Your task to perform on an android device: Open CNN.com Image 0: 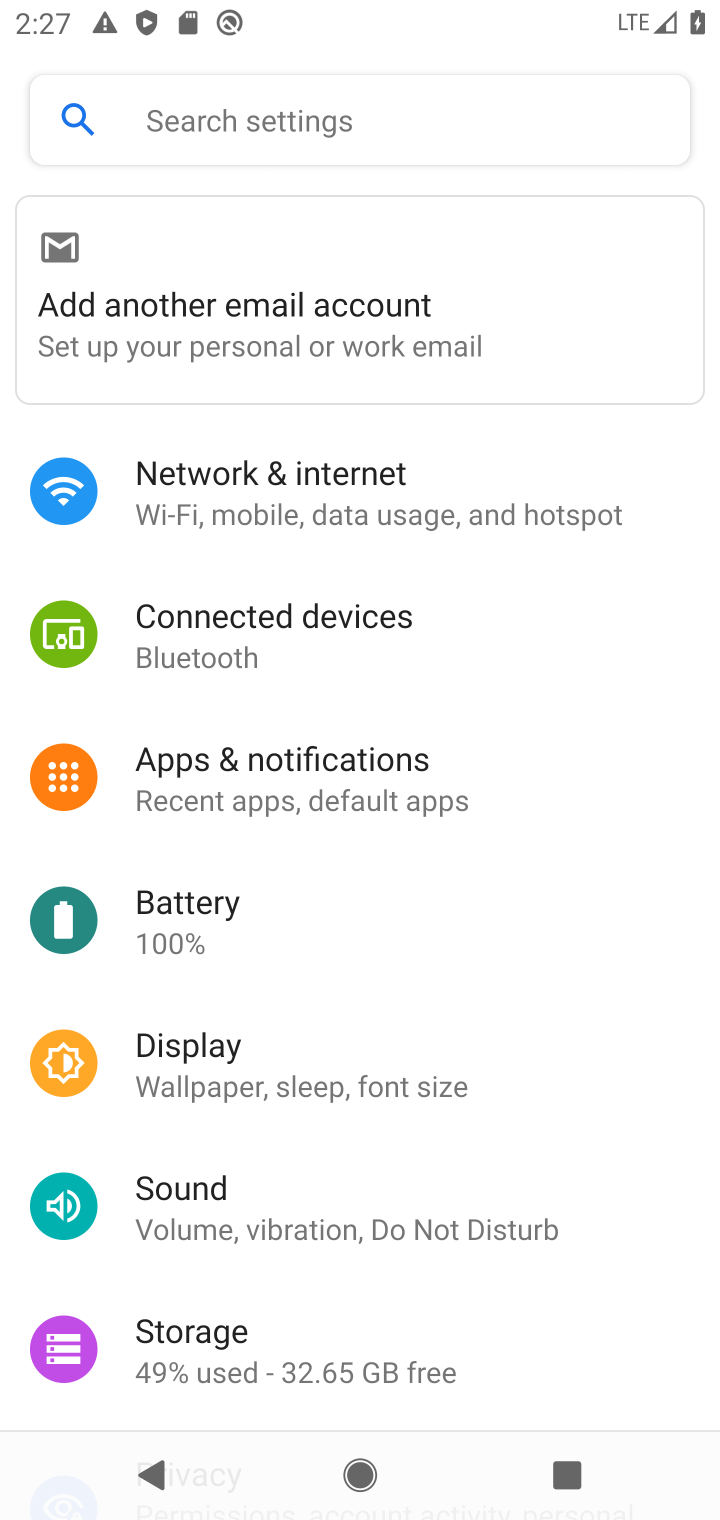
Step 0: press back button
Your task to perform on an android device: Open CNN.com Image 1: 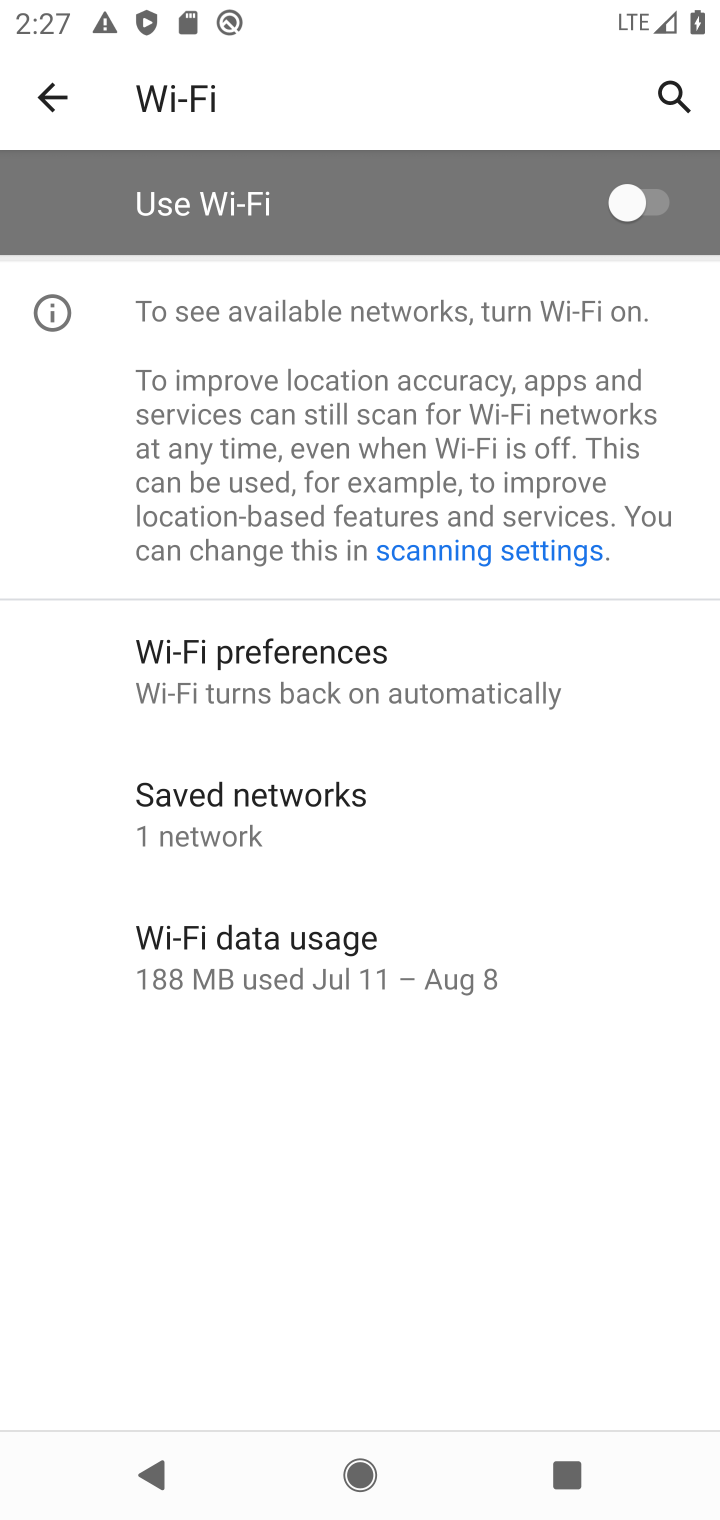
Step 1: press back button
Your task to perform on an android device: Open CNN.com Image 2: 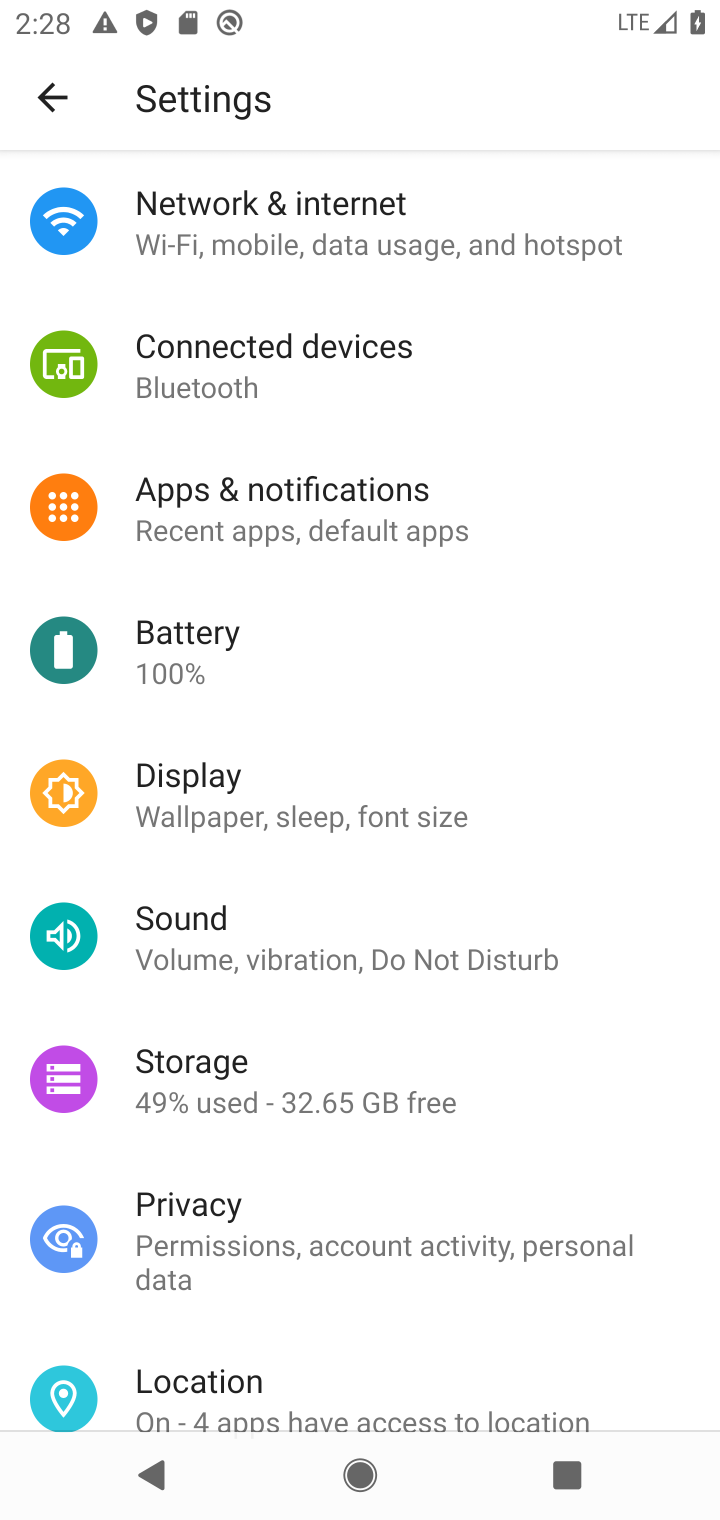
Step 2: press back button
Your task to perform on an android device: Open CNN.com Image 3: 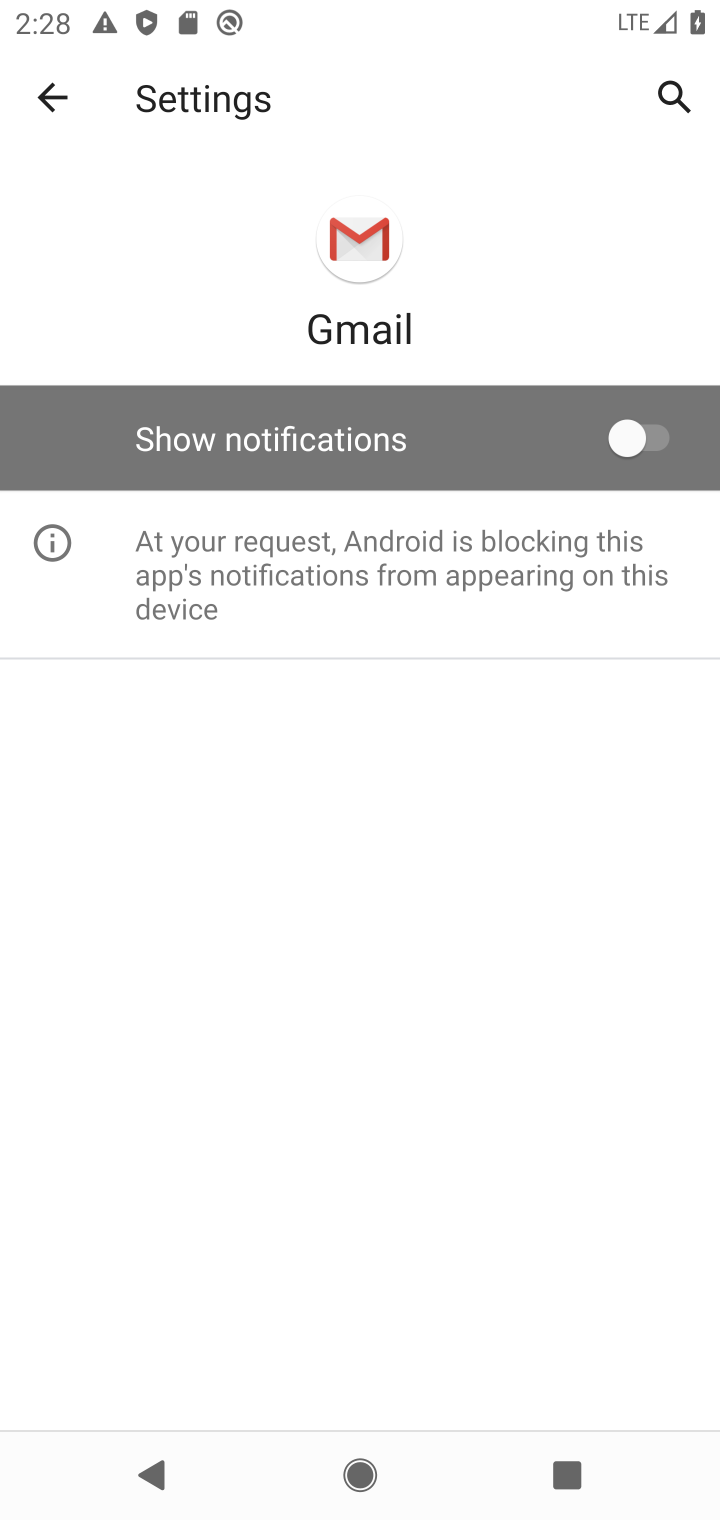
Step 3: press back button
Your task to perform on an android device: Open CNN.com Image 4: 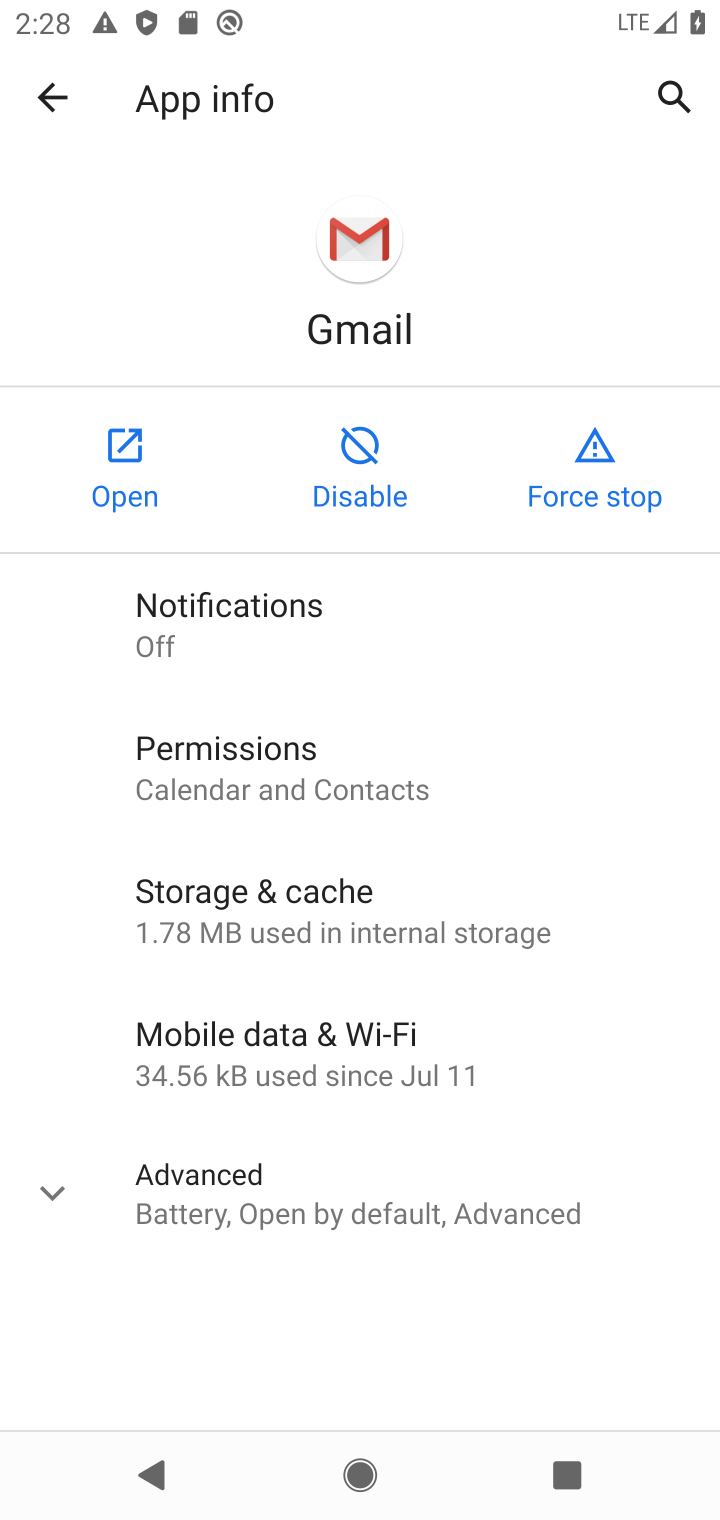
Step 4: press back button
Your task to perform on an android device: Open CNN.com Image 5: 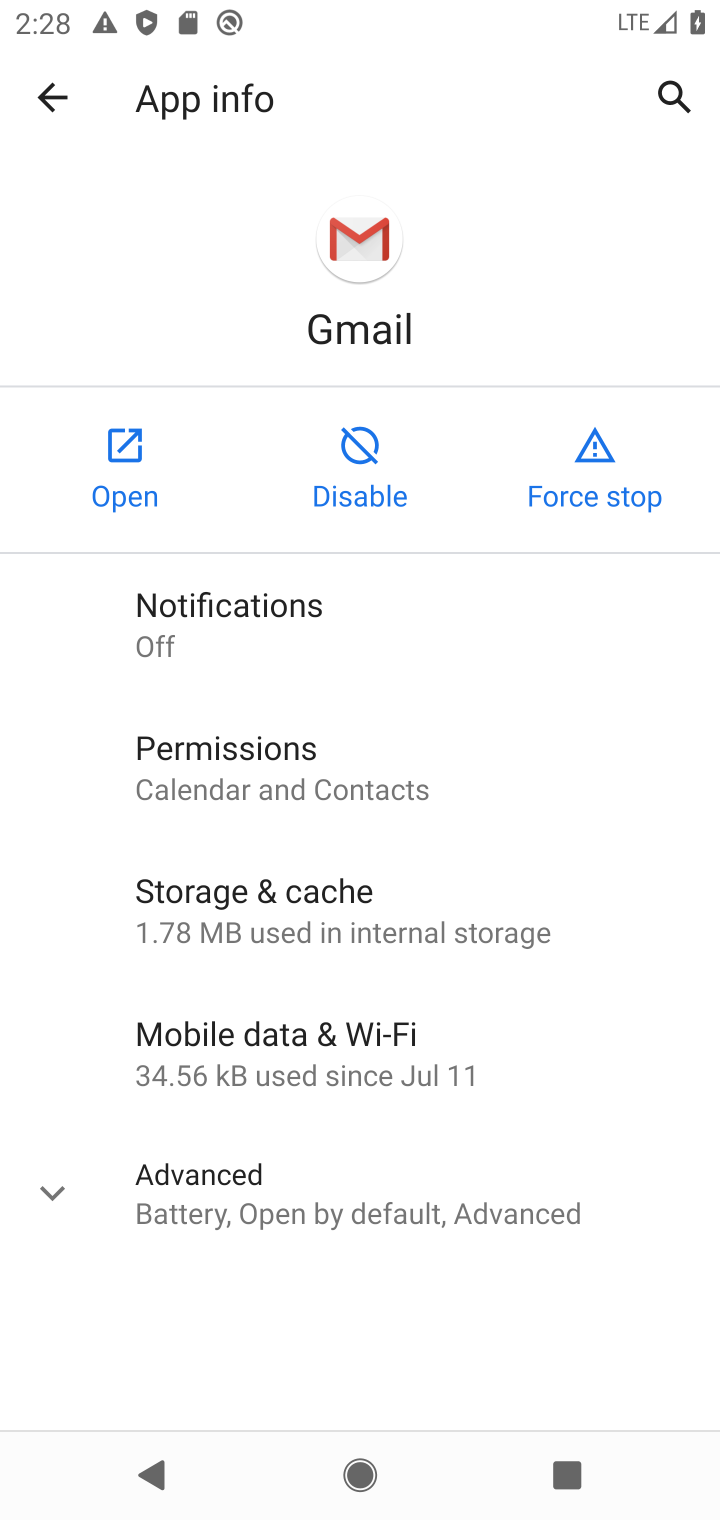
Step 5: press back button
Your task to perform on an android device: Open CNN.com Image 6: 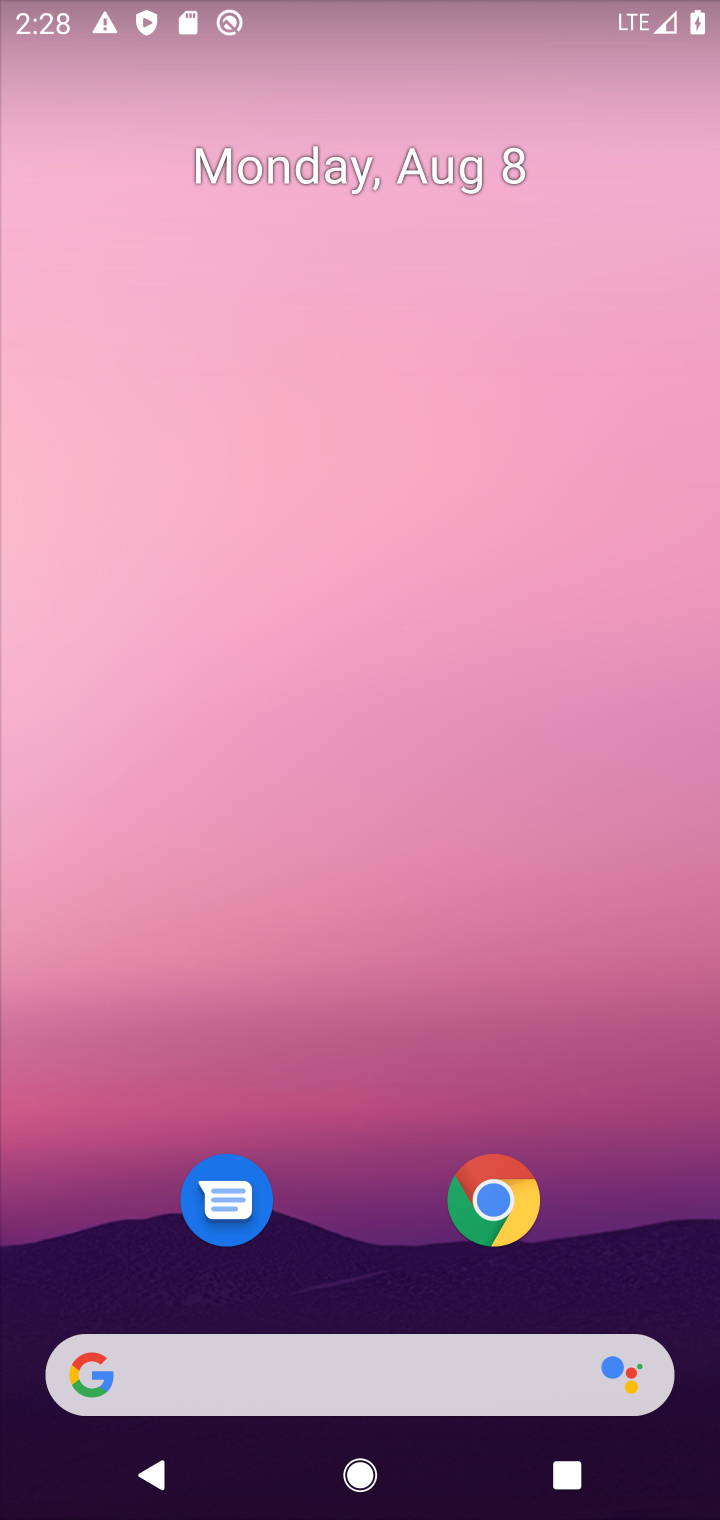
Step 6: click (495, 1183)
Your task to perform on an android device: Open CNN.com Image 7: 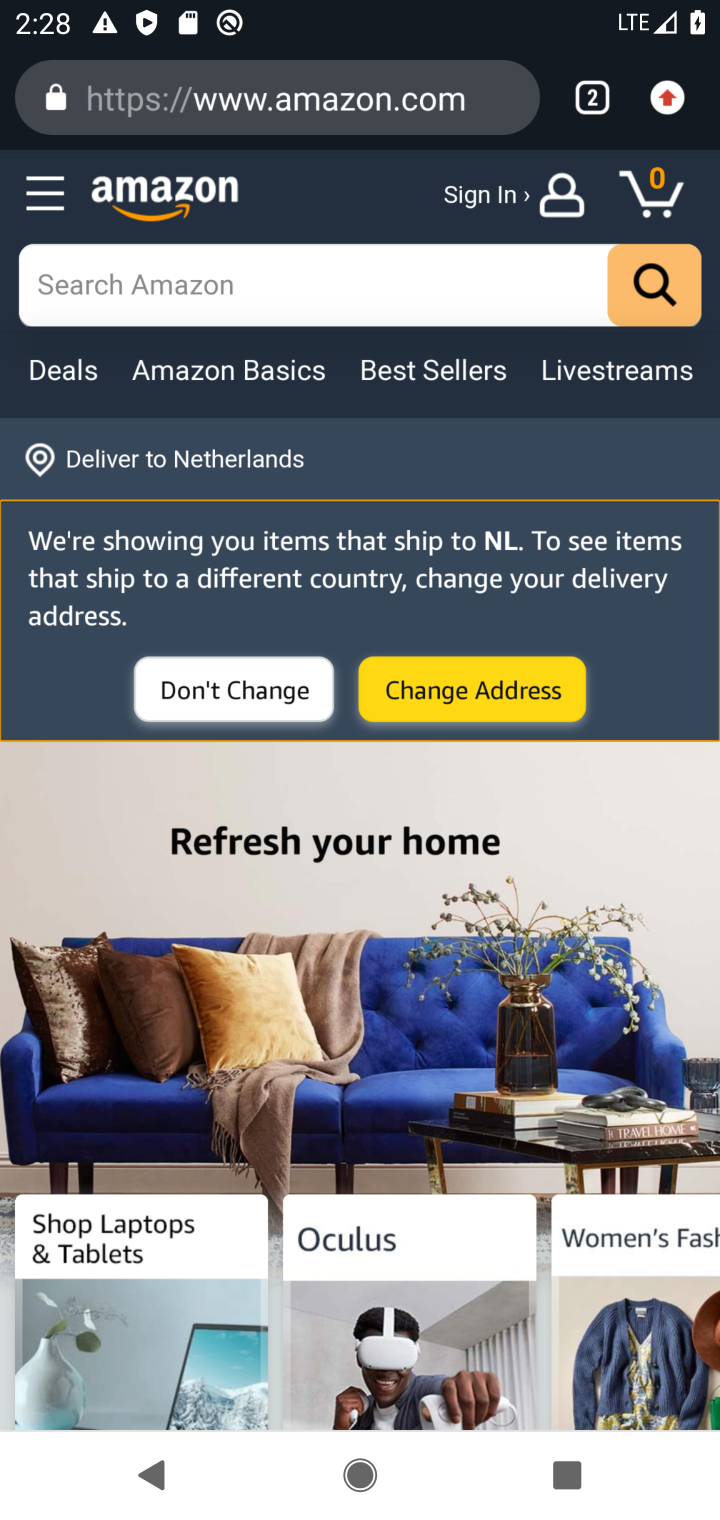
Step 7: click (611, 113)
Your task to perform on an android device: Open CNN.com Image 8: 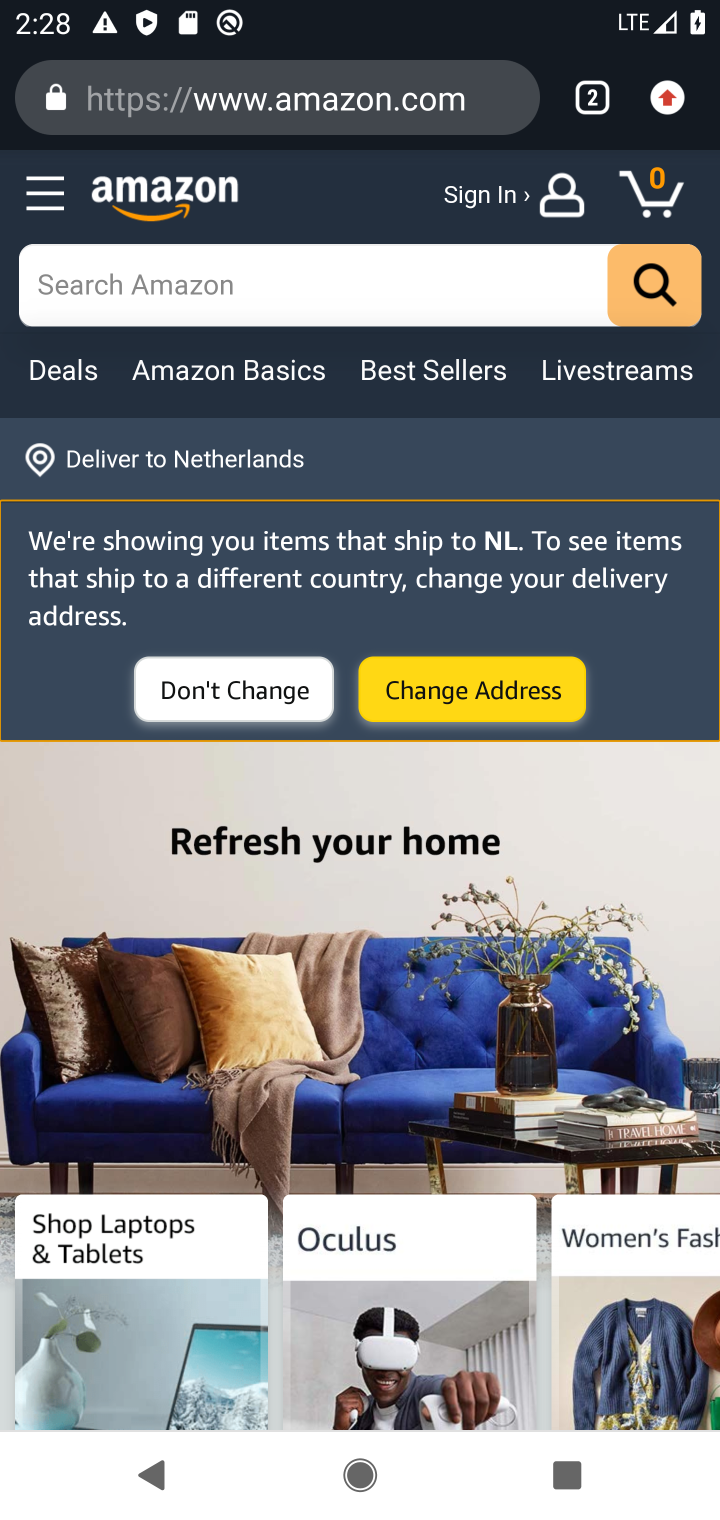
Step 8: click (594, 91)
Your task to perform on an android device: Open CNN.com Image 9: 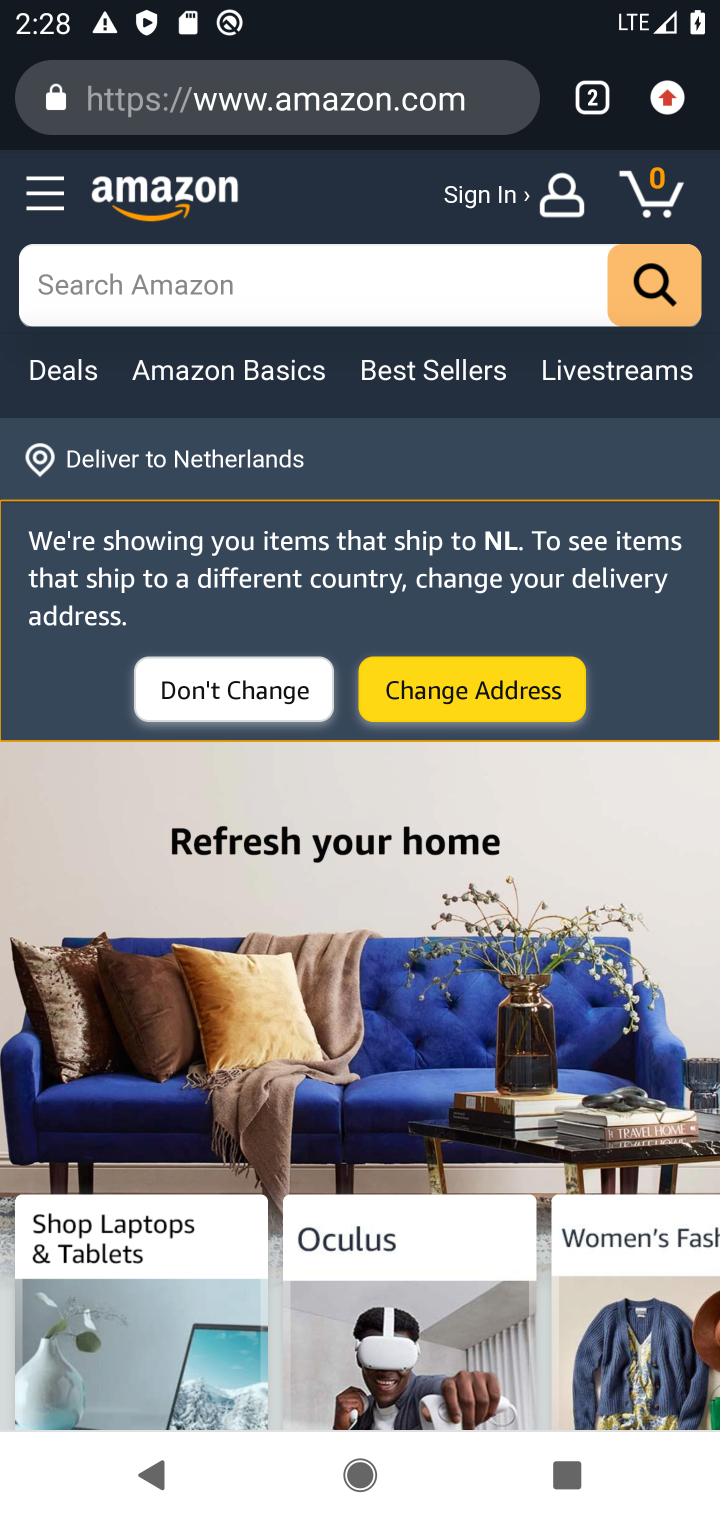
Step 9: click (600, 100)
Your task to perform on an android device: Open CNN.com Image 10: 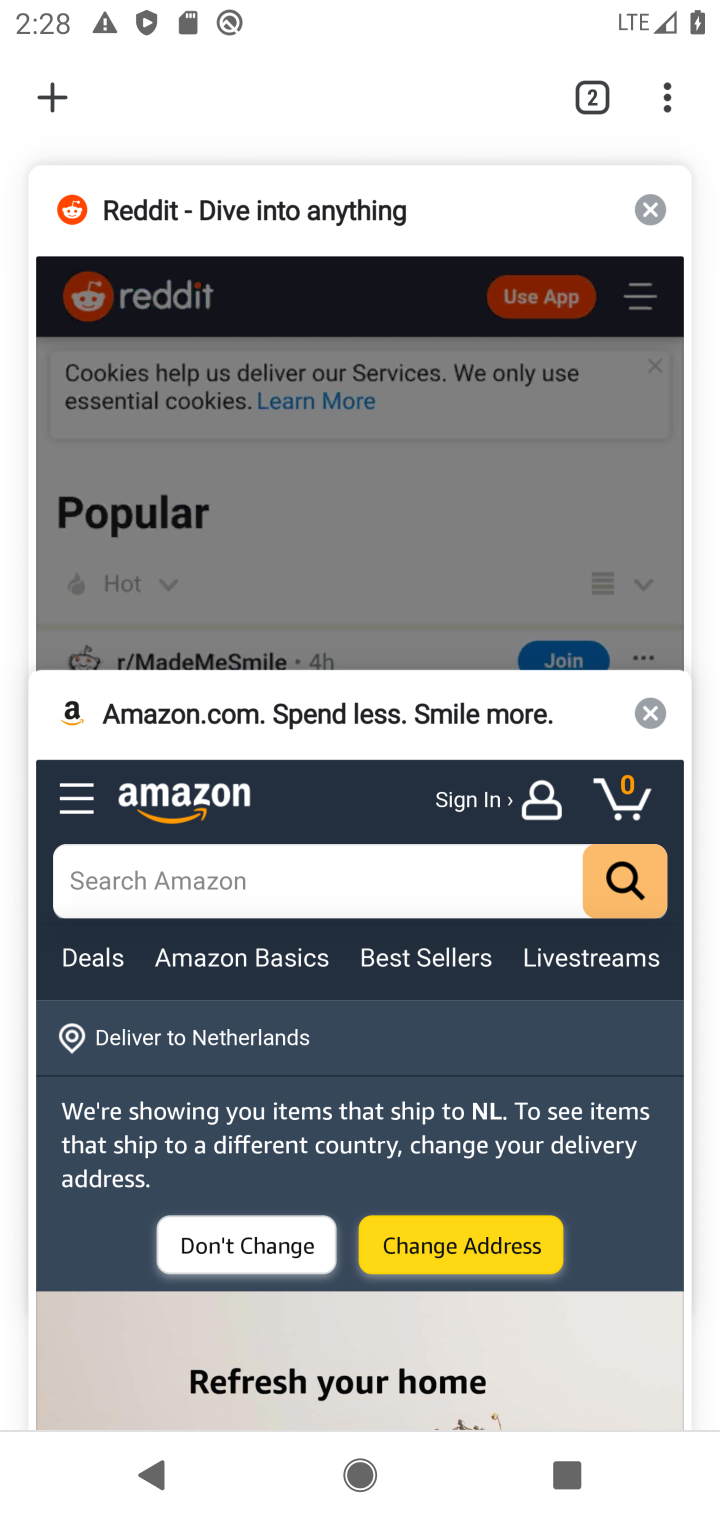
Step 10: click (54, 88)
Your task to perform on an android device: Open CNN.com Image 11: 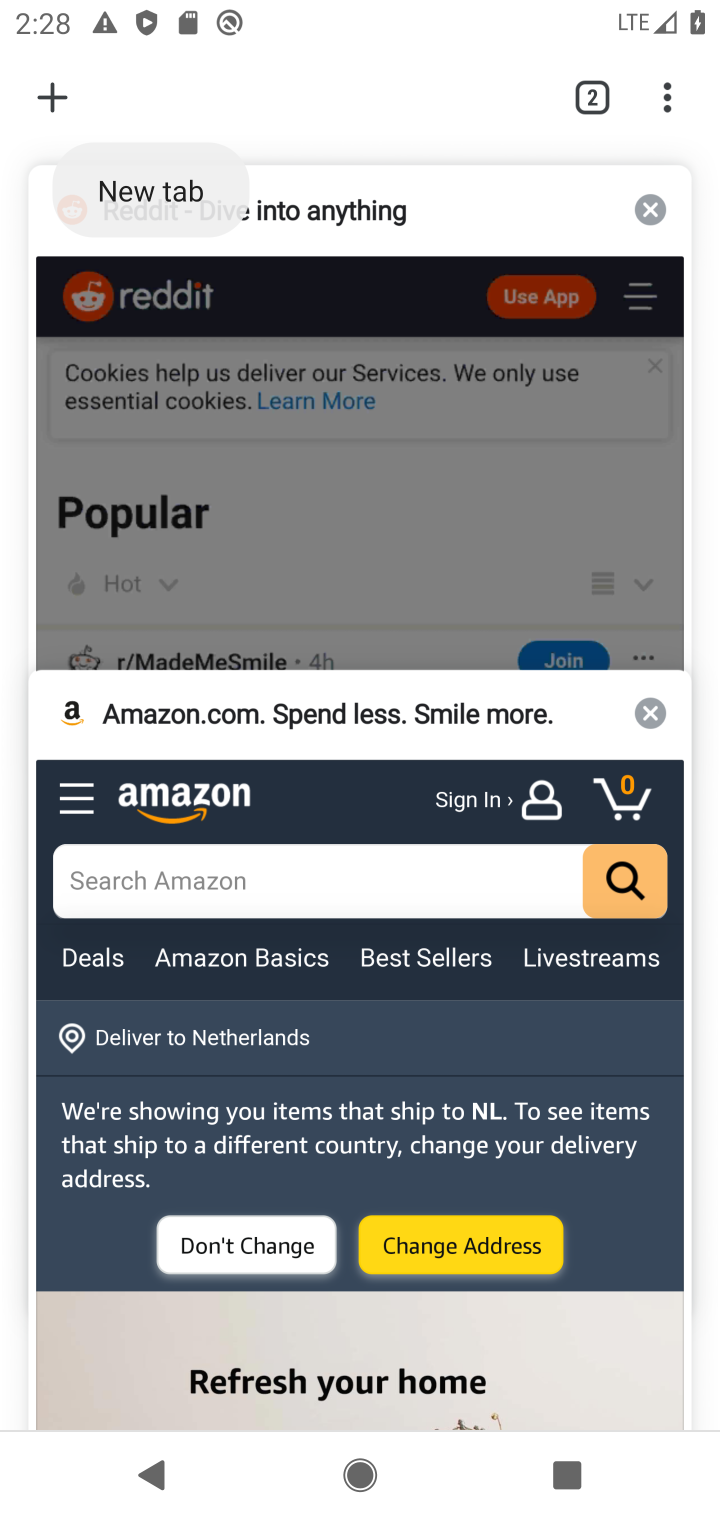
Step 11: click (45, 110)
Your task to perform on an android device: Open CNN.com Image 12: 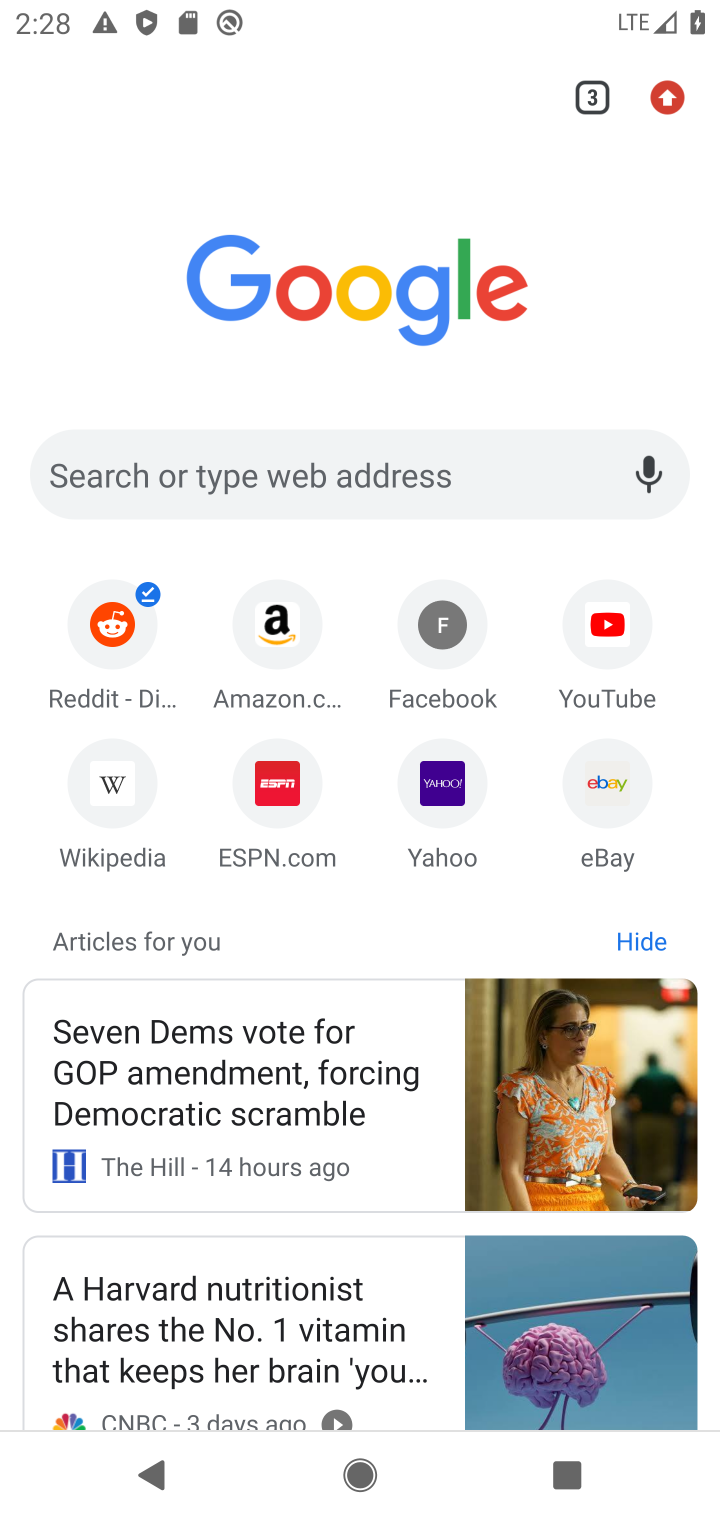
Step 12: click (307, 473)
Your task to perform on an android device: Open CNN.com Image 13: 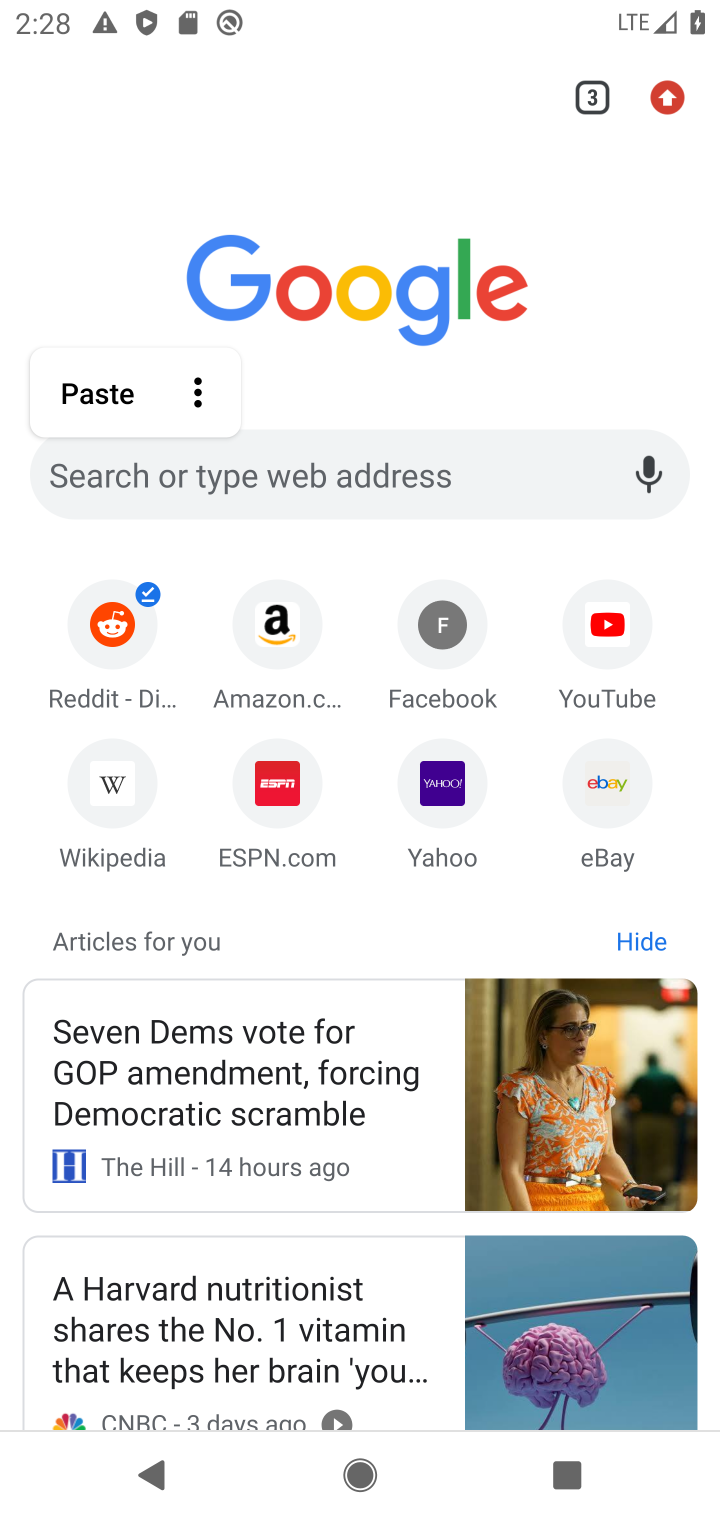
Step 13: type "cnn.com"
Your task to perform on an android device: Open CNN.com Image 14: 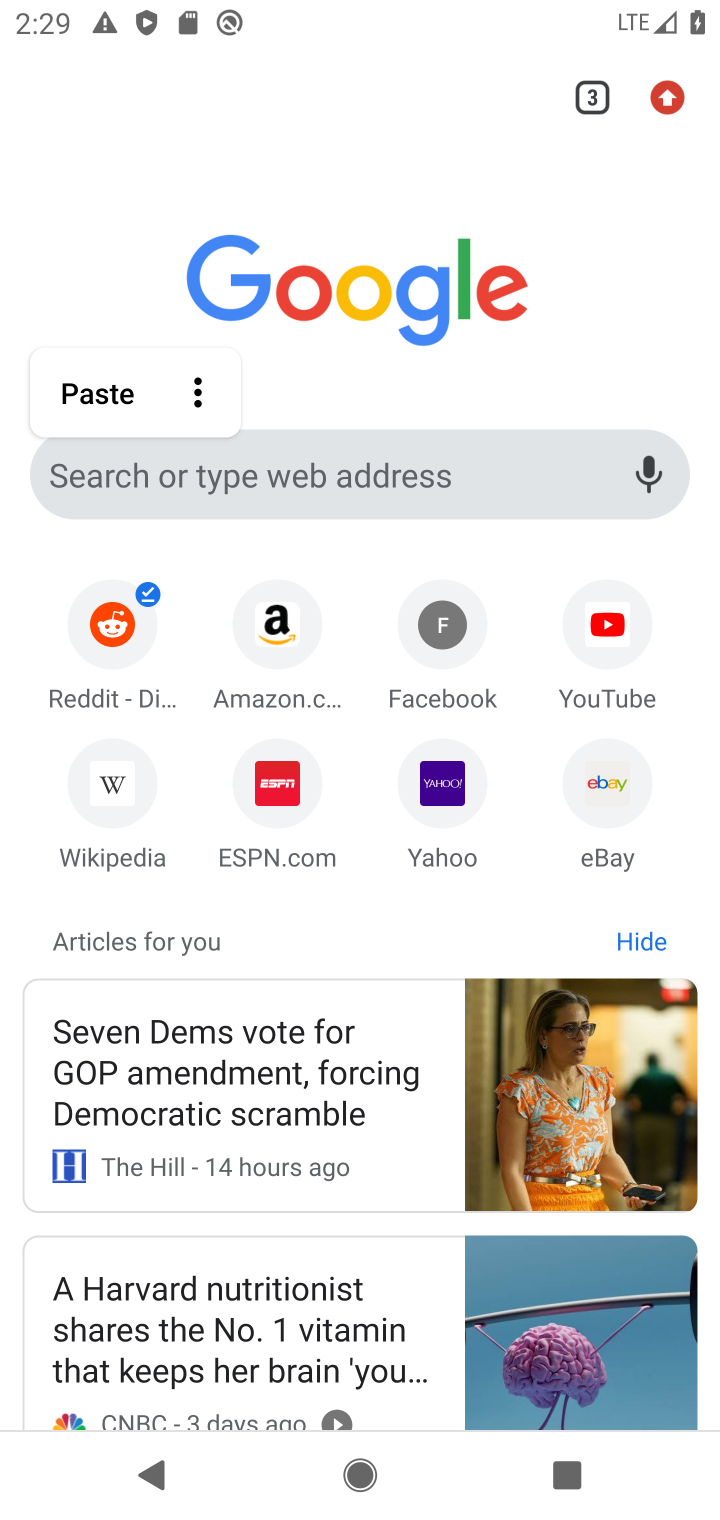
Step 14: click (267, 485)
Your task to perform on an android device: Open CNN.com Image 15: 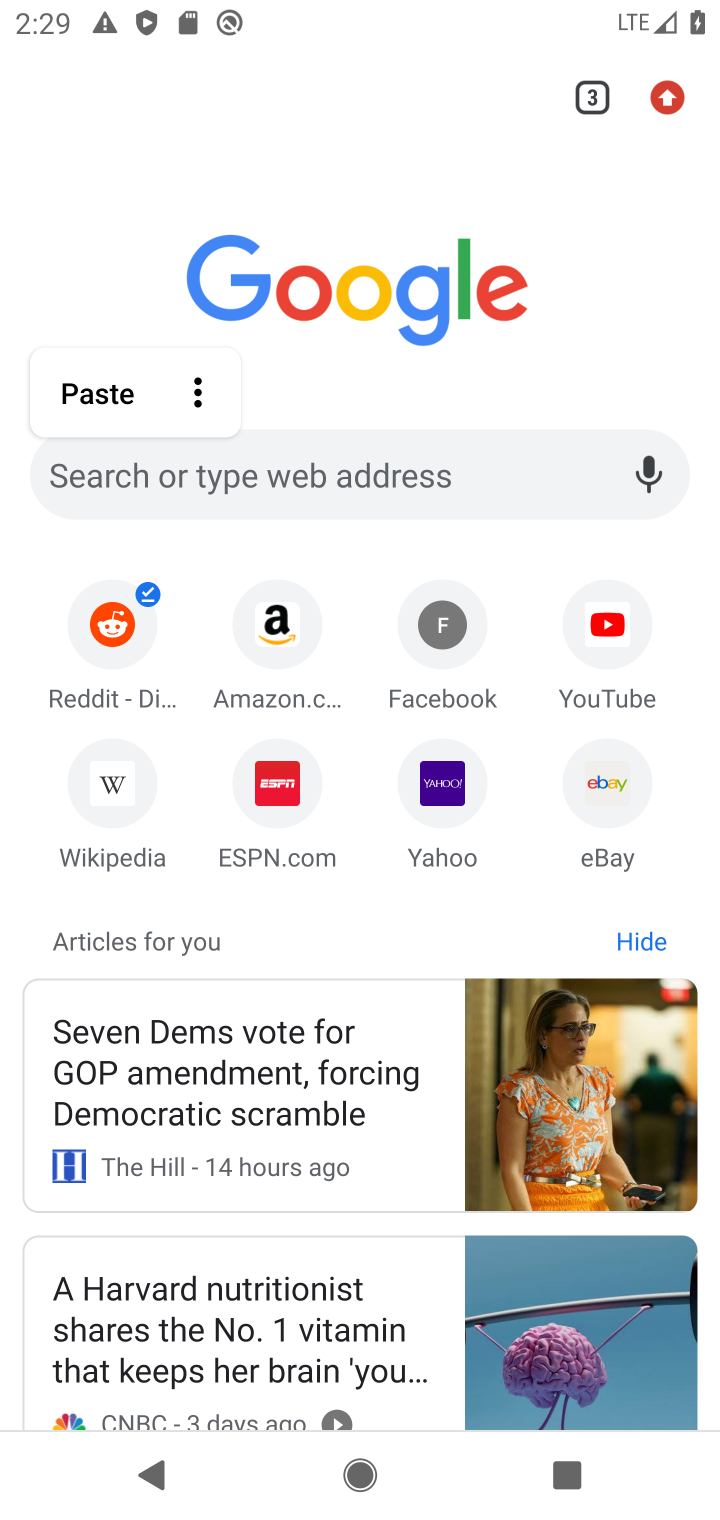
Step 15: click (273, 470)
Your task to perform on an android device: Open CNN.com Image 16: 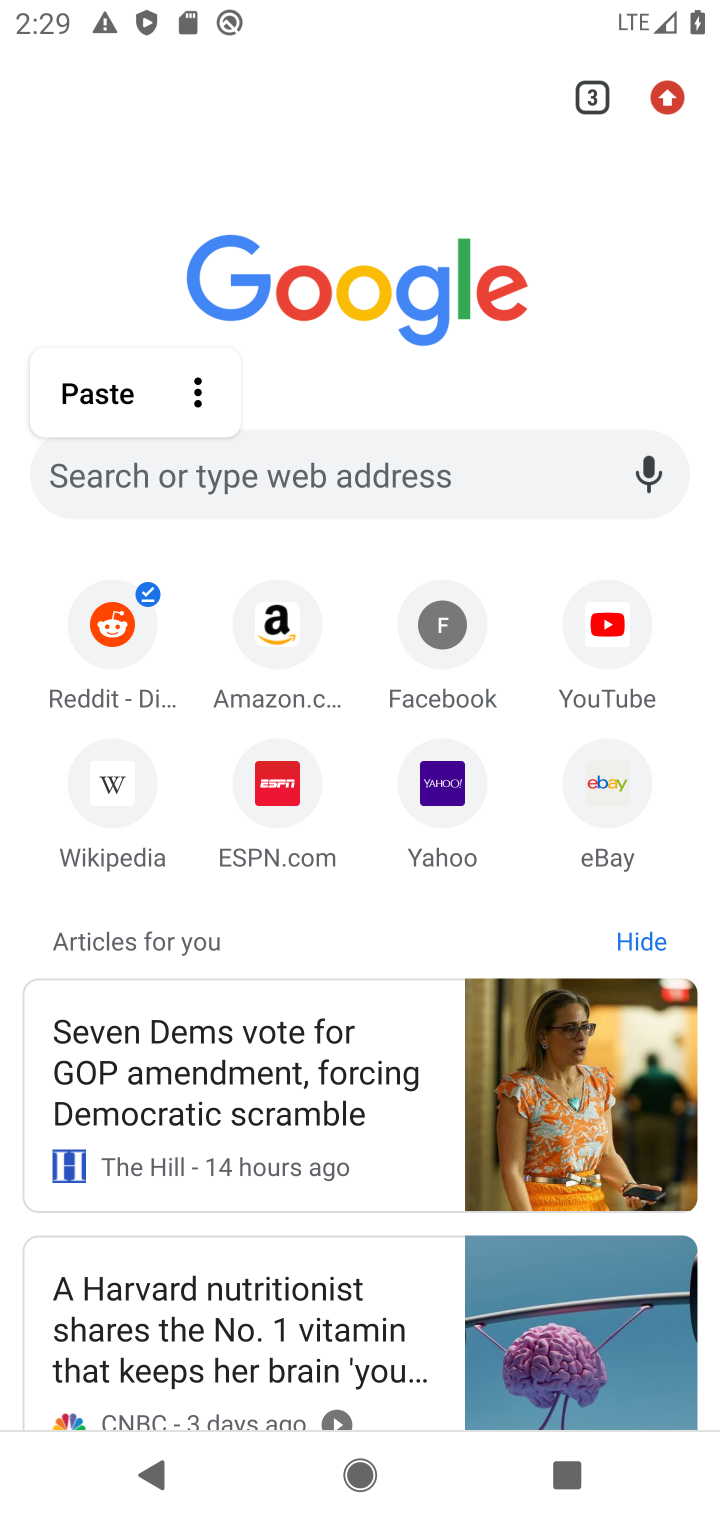
Step 16: type "cnn.com"
Your task to perform on an android device: Open CNN.com Image 17: 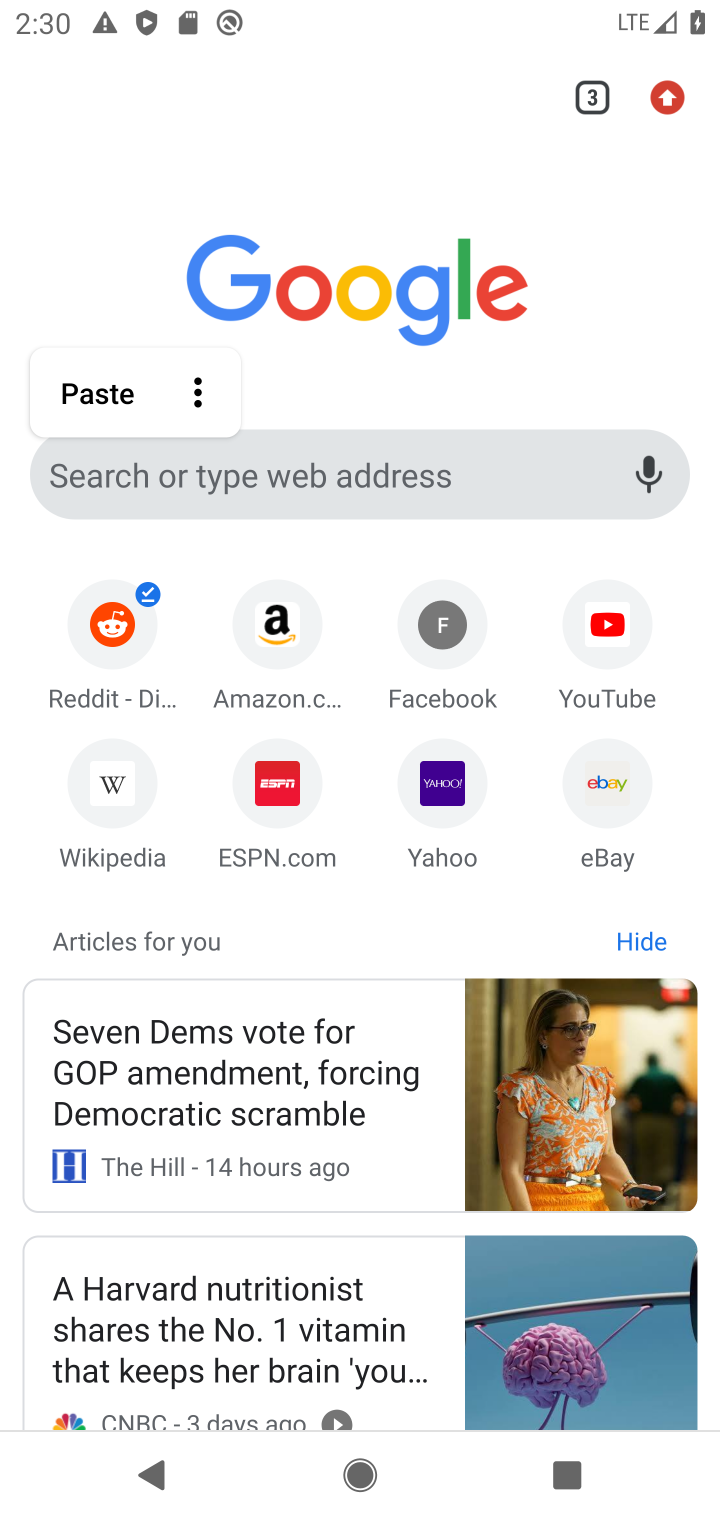
Step 17: click (278, 483)
Your task to perform on an android device: Open CNN.com Image 18: 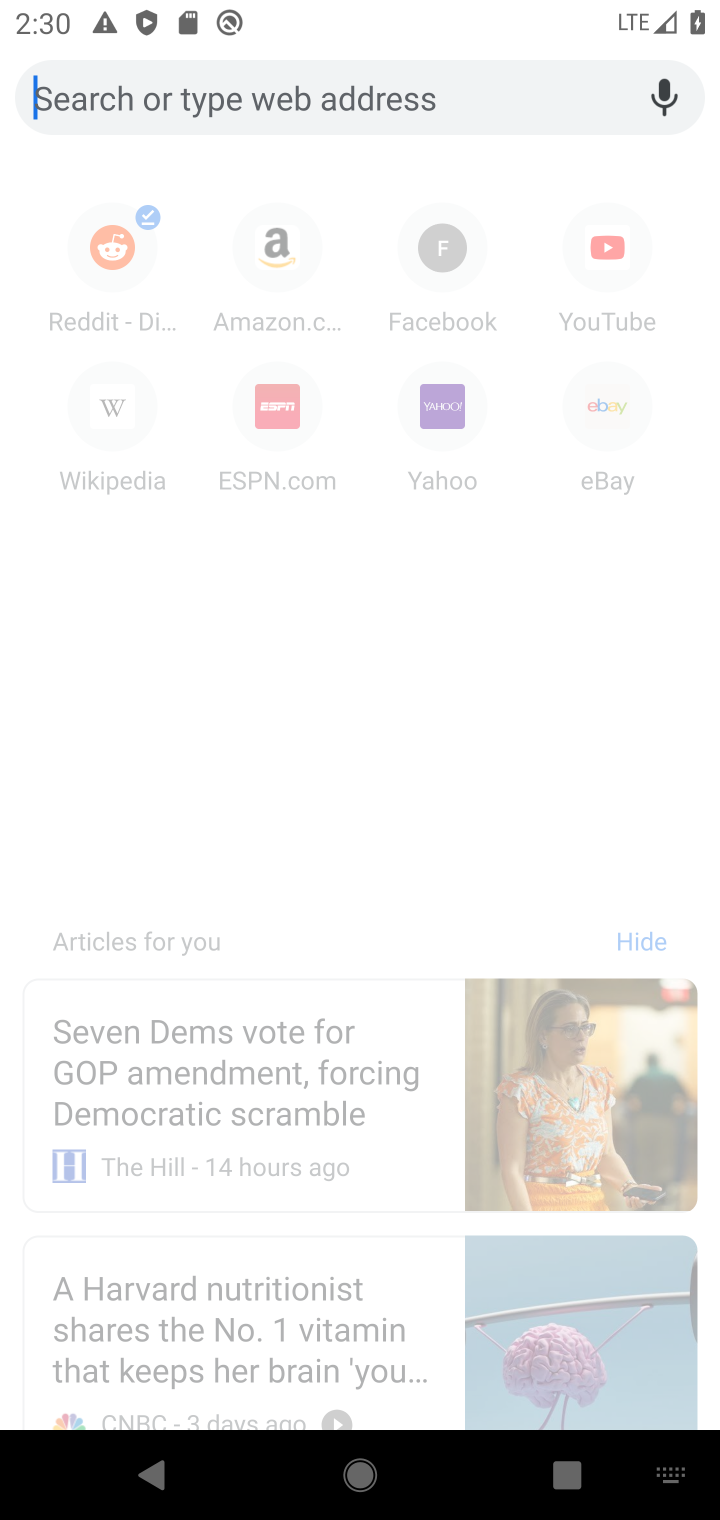
Step 18: click (255, 89)
Your task to perform on an android device: Open CNN.com Image 19: 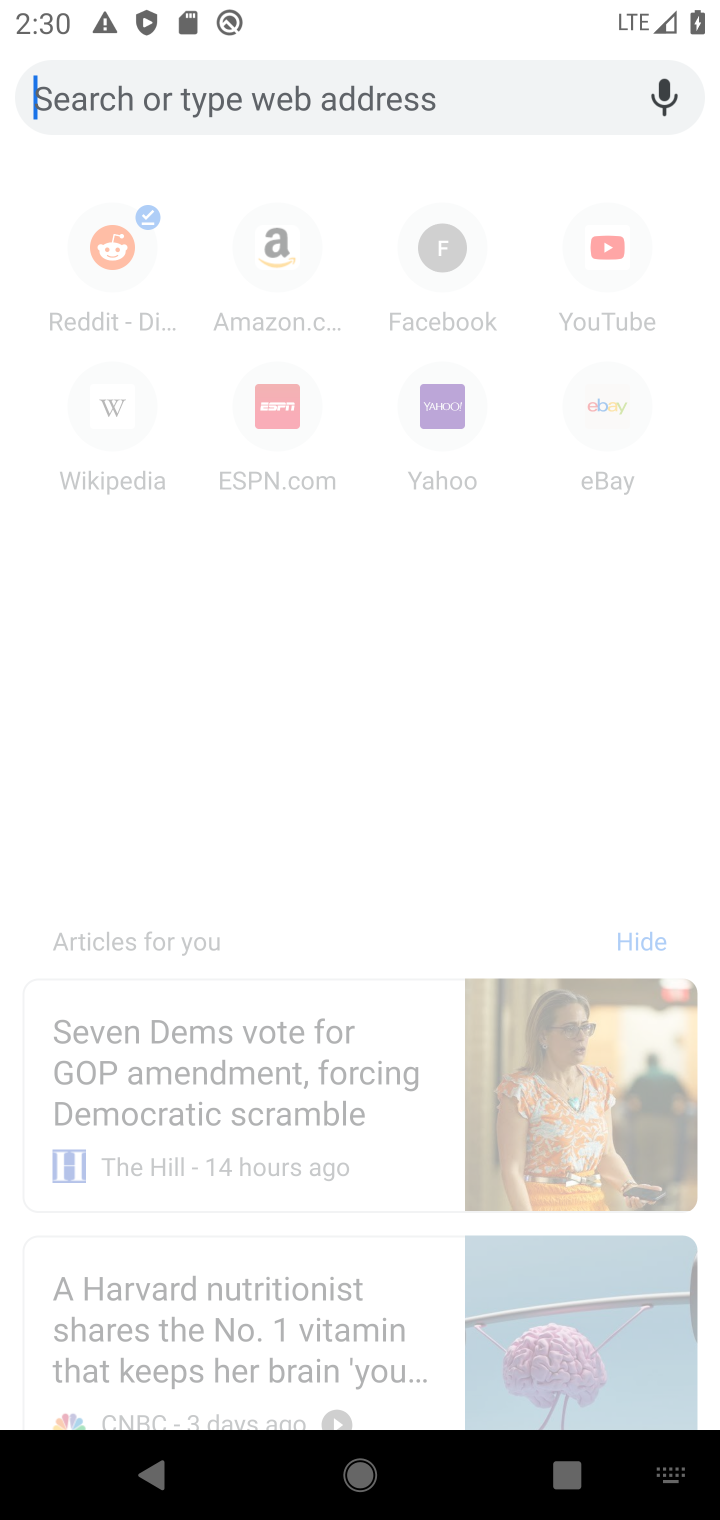
Step 19: type "cnn.com"
Your task to perform on an android device: Open CNN.com Image 20: 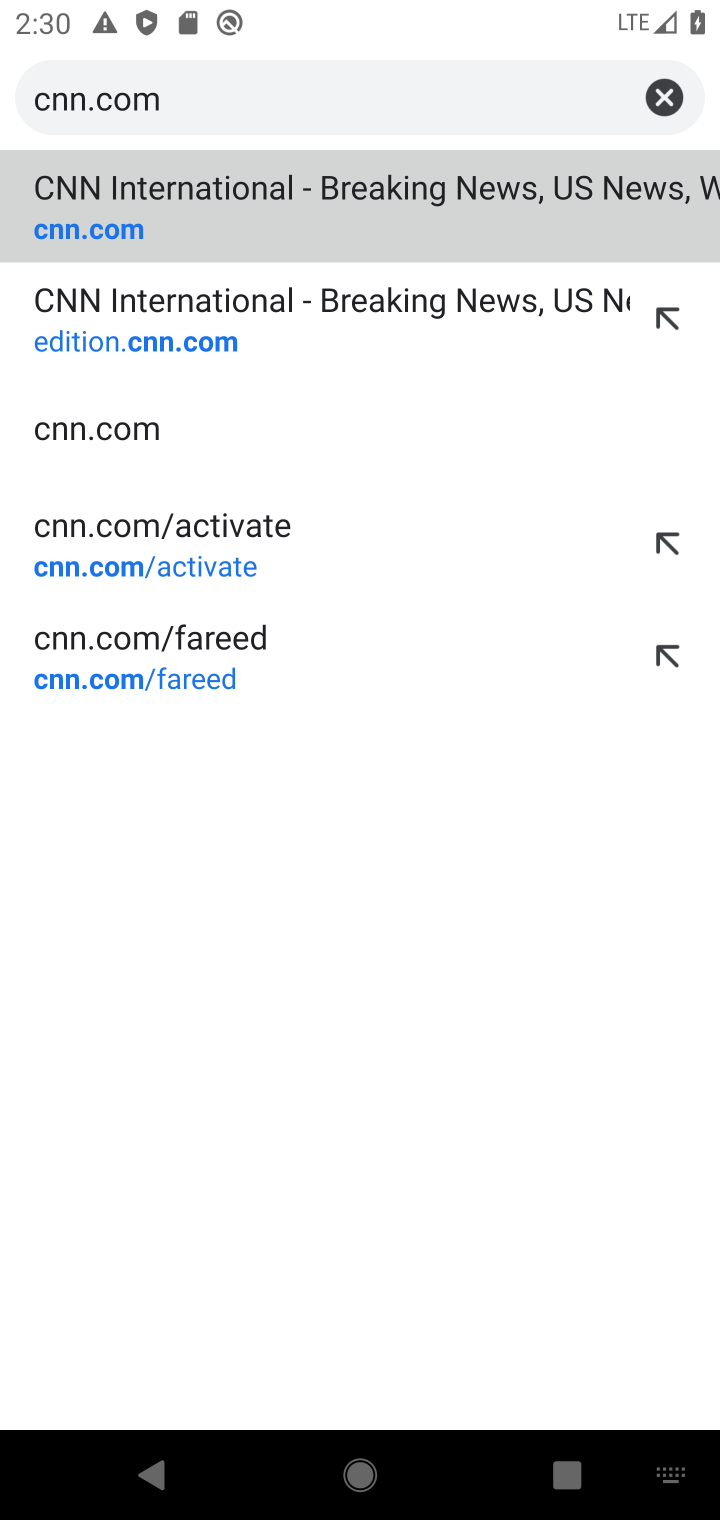
Step 20: click (156, 209)
Your task to perform on an android device: Open CNN.com Image 21: 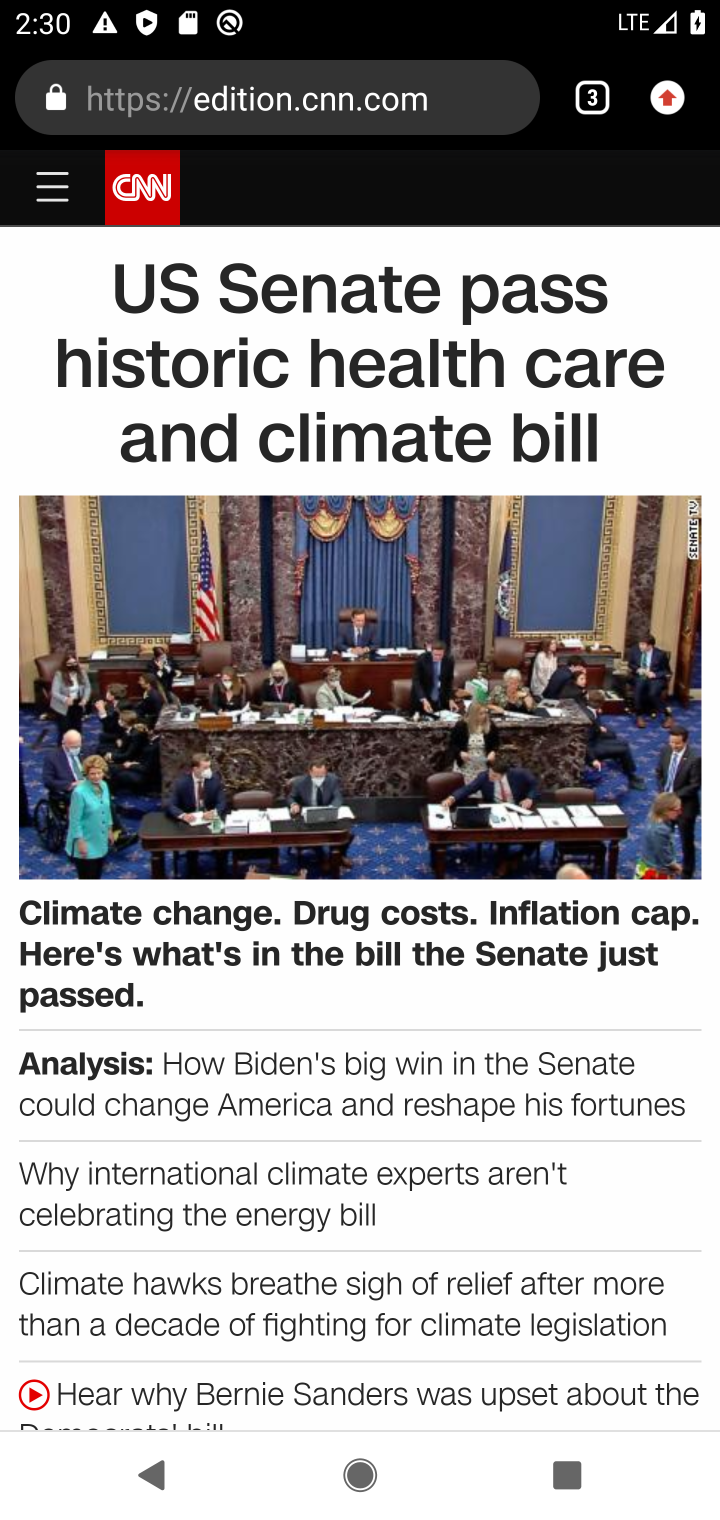
Step 21: task complete